Your task to perform on an android device: Add "razer deathadder" to the cart on ebay.com, then select checkout. Image 0: 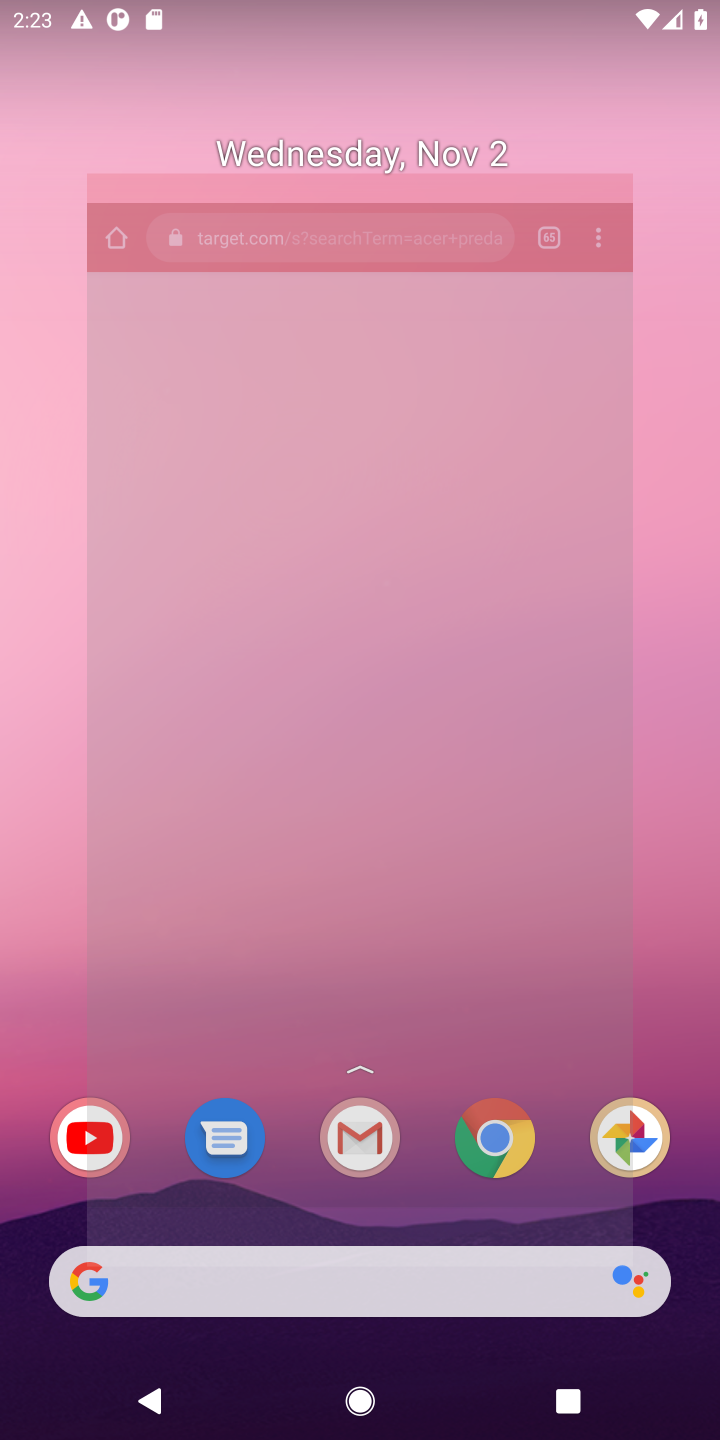
Step 0: press home button
Your task to perform on an android device: Add "razer deathadder" to the cart on ebay.com, then select checkout. Image 1: 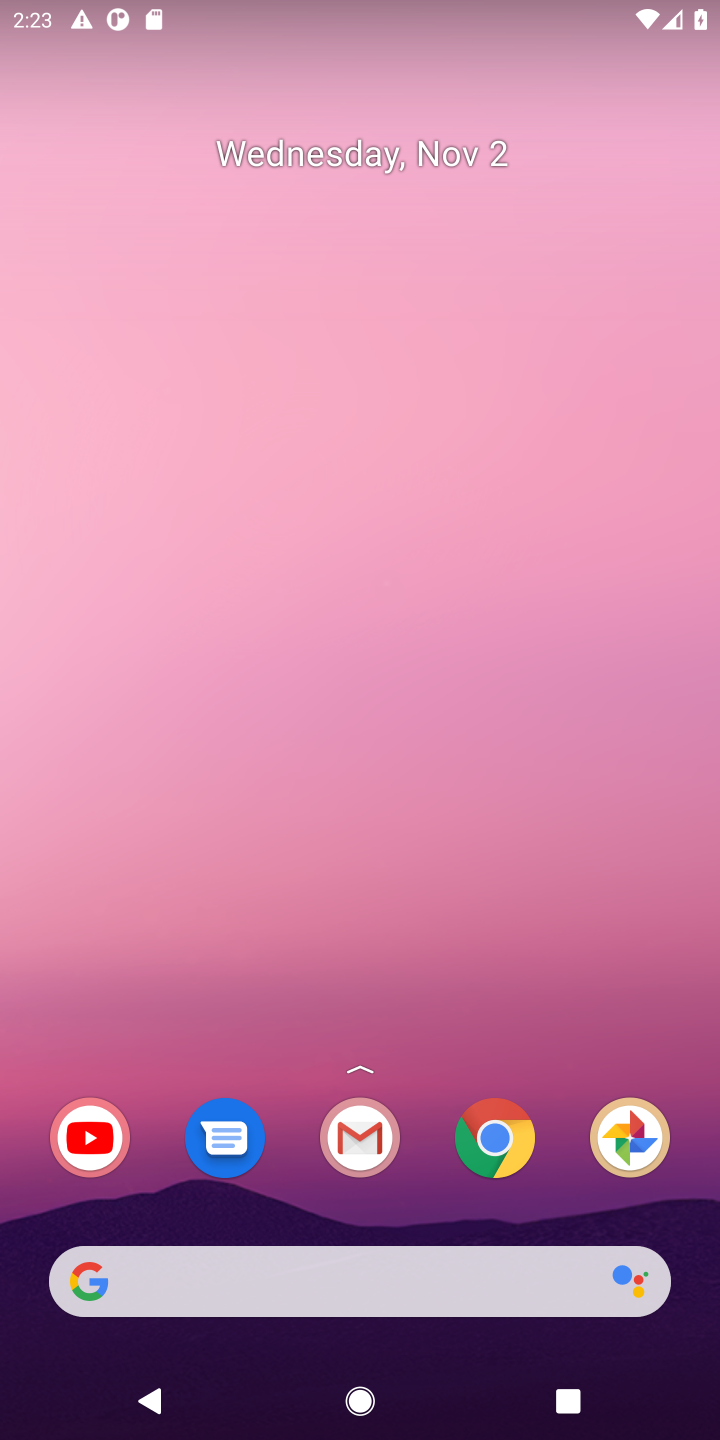
Step 1: press home button
Your task to perform on an android device: Add "razer deathadder" to the cart on ebay.com, then select checkout. Image 2: 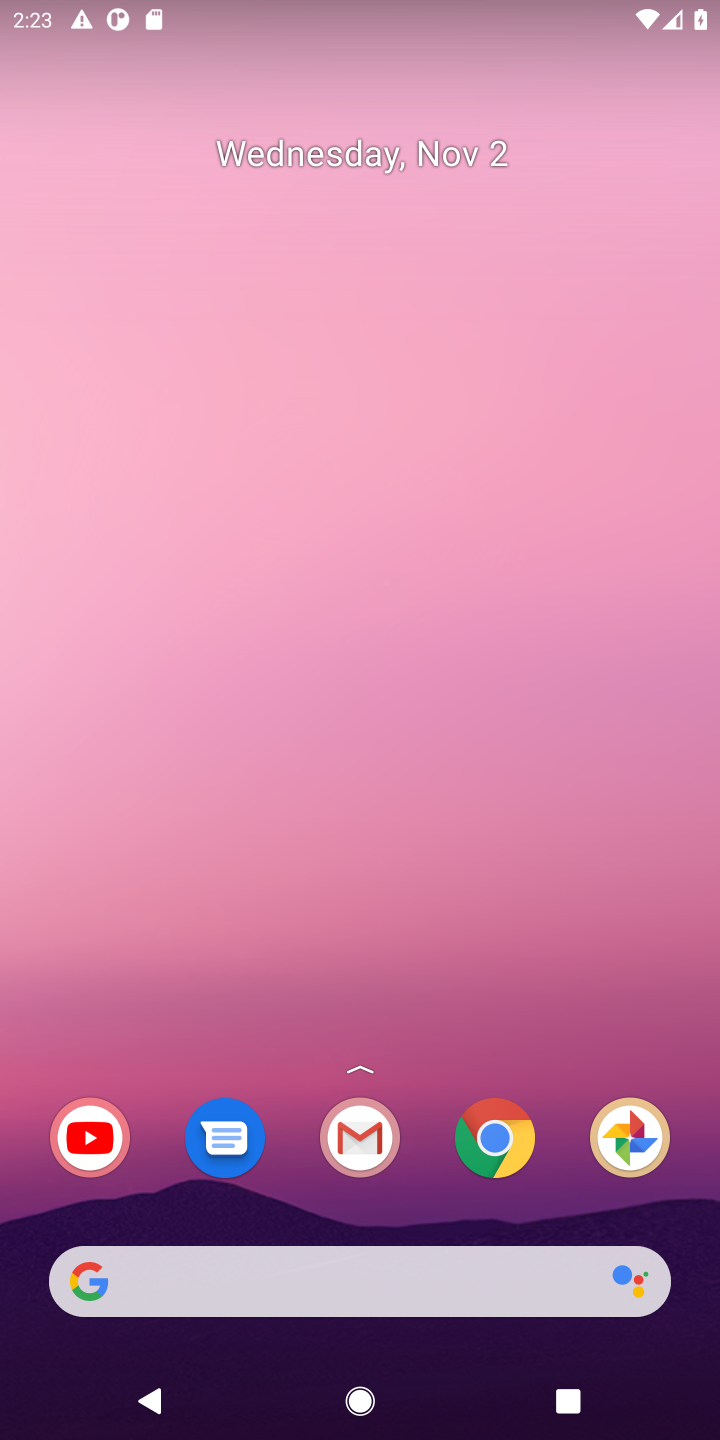
Step 2: click (140, 1272)
Your task to perform on an android device: Add "razer deathadder" to the cart on ebay.com, then select checkout. Image 3: 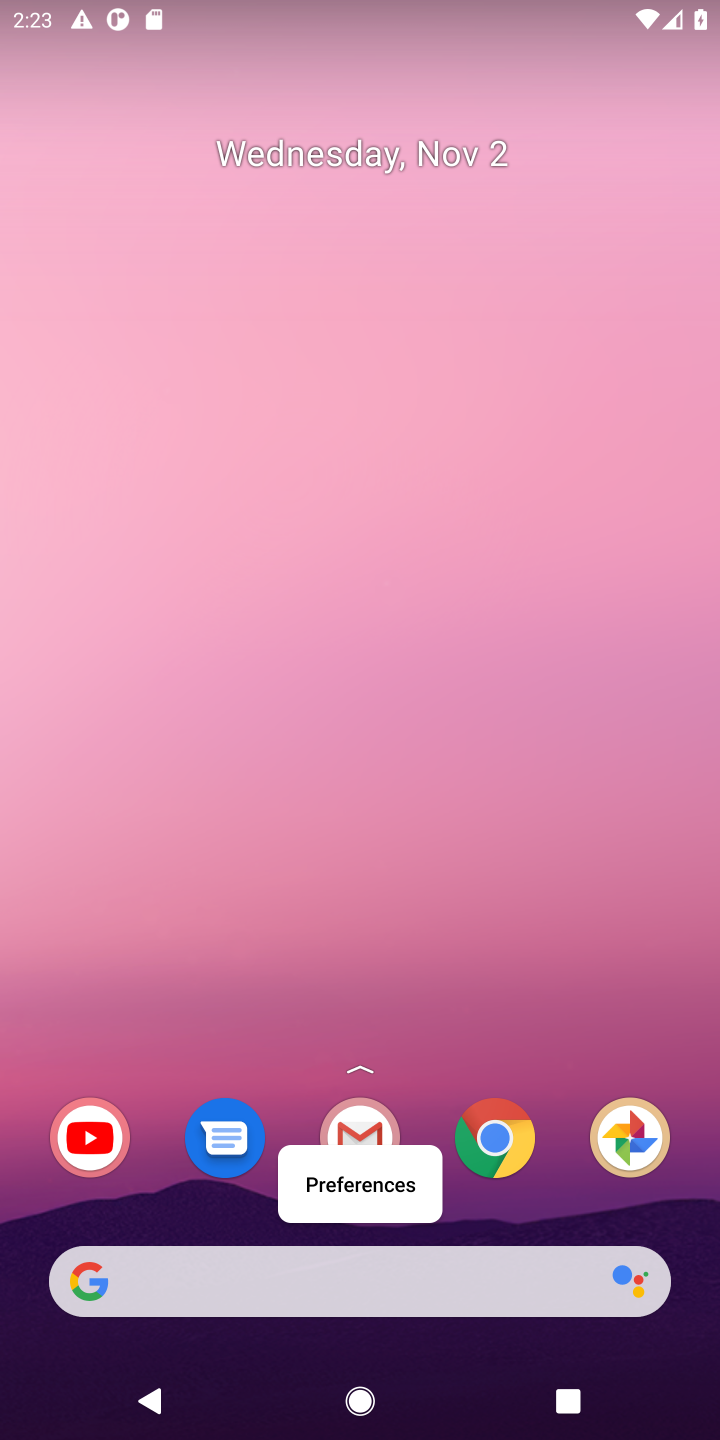
Step 3: click (160, 1274)
Your task to perform on an android device: Add "razer deathadder" to the cart on ebay.com, then select checkout. Image 4: 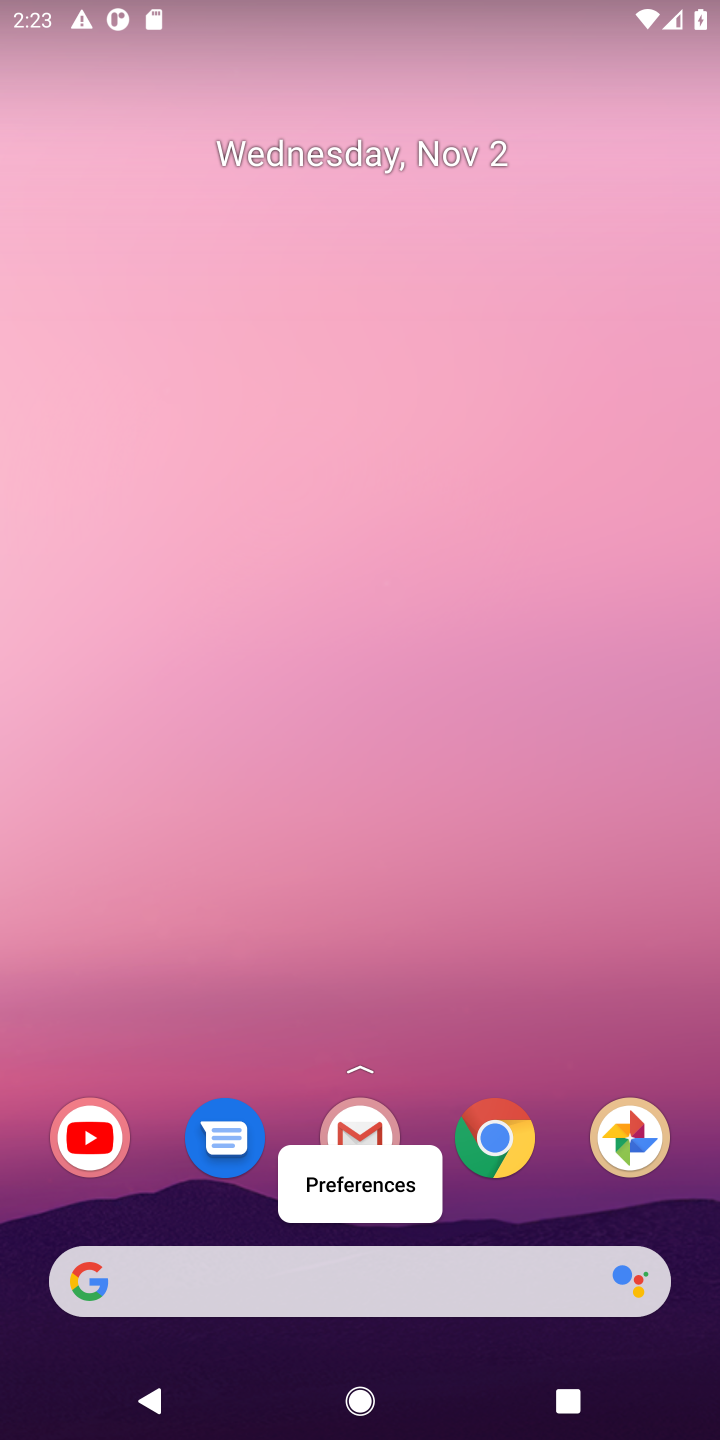
Step 4: click (133, 1272)
Your task to perform on an android device: Add "razer deathadder" to the cart on ebay.com, then select checkout. Image 5: 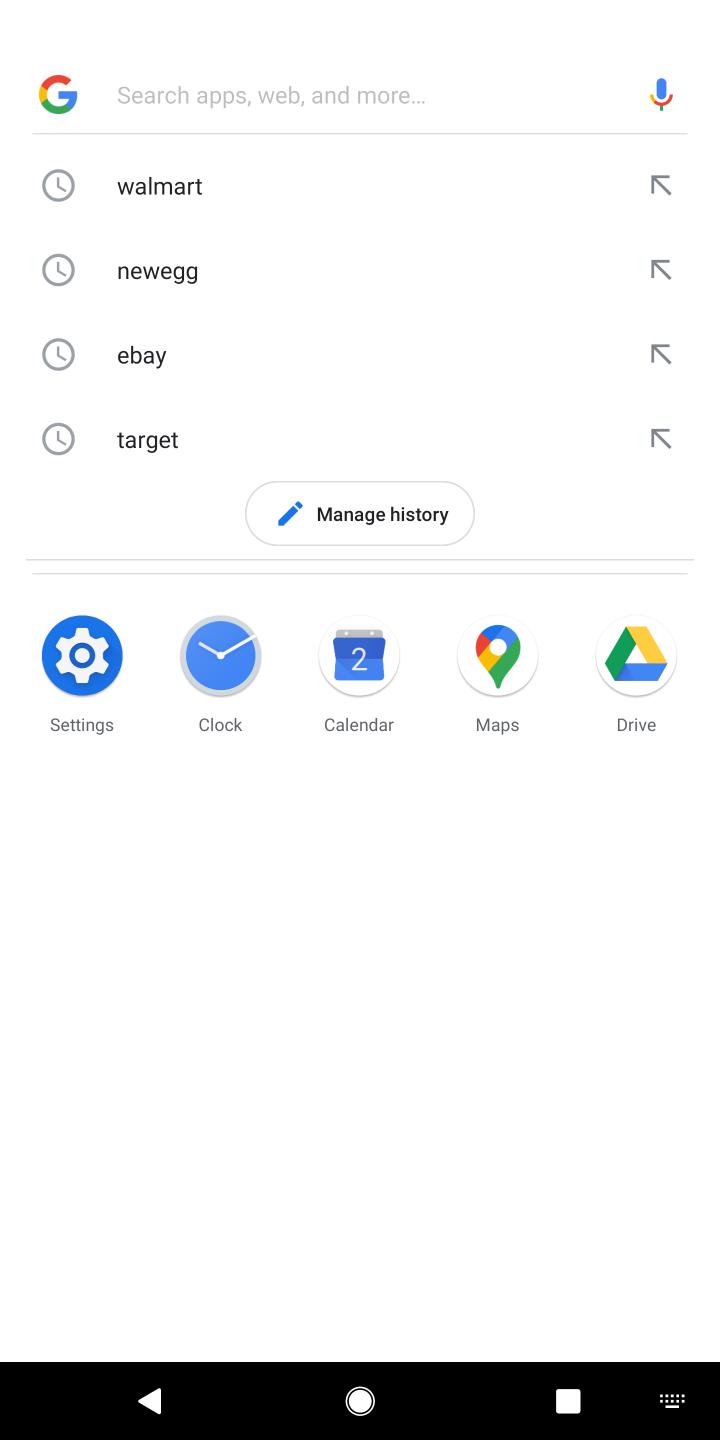
Step 5: type "ebay.com"
Your task to perform on an android device: Add "razer deathadder" to the cart on ebay.com, then select checkout. Image 6: 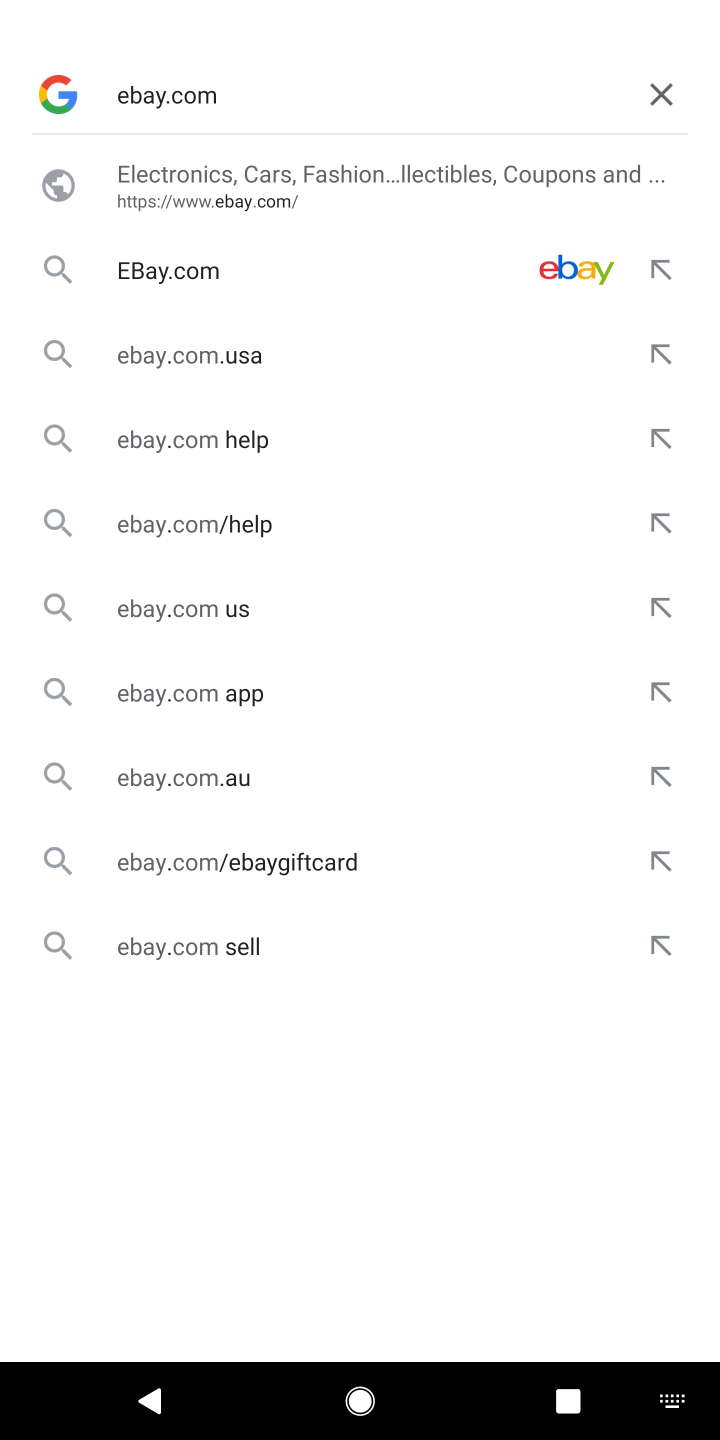
Step 6: press enter
Your task to perform on an android device: Add "razer deathadder" to the cart on ebay.com, then select checkout. Image 7: 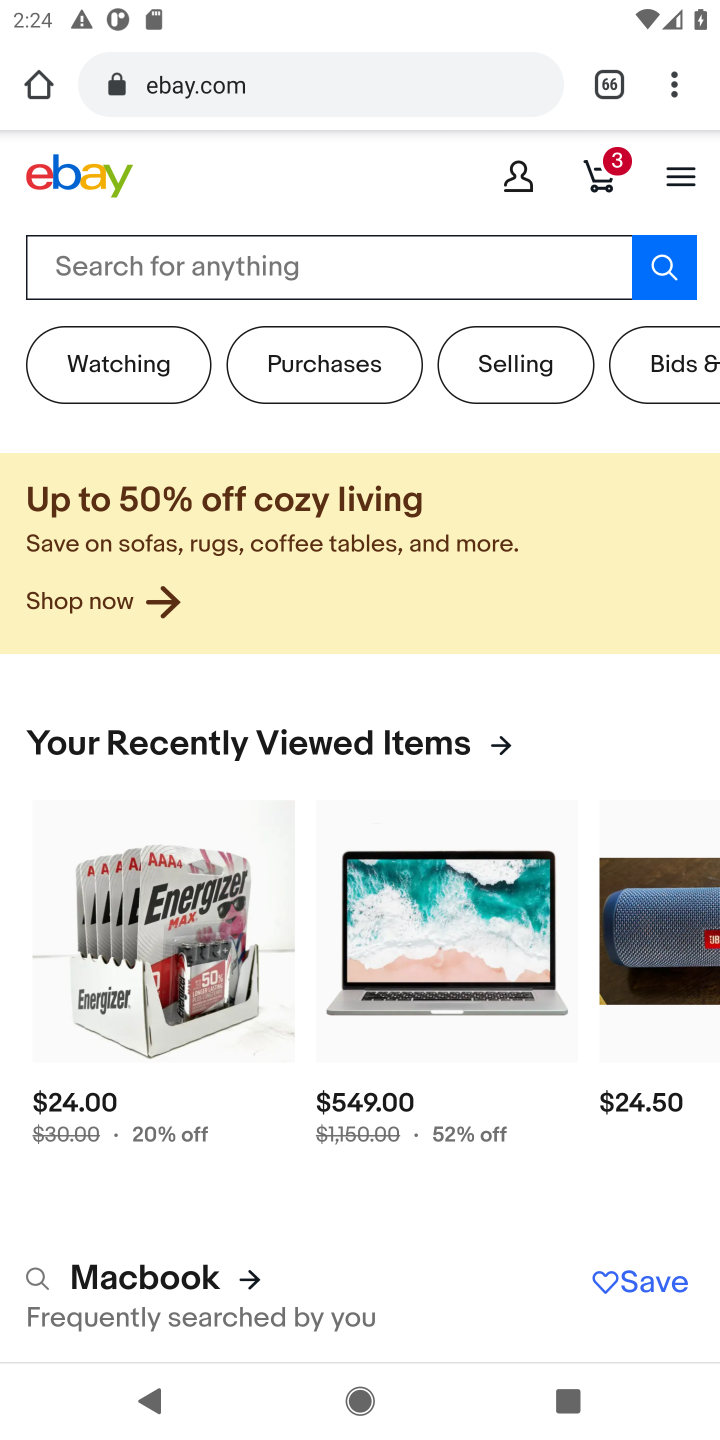
Step 7: click (309, 261)
Your task to perform on an android device: Add "razer deathadder" to the cart on ebay.com, then select checkout. Image 8: 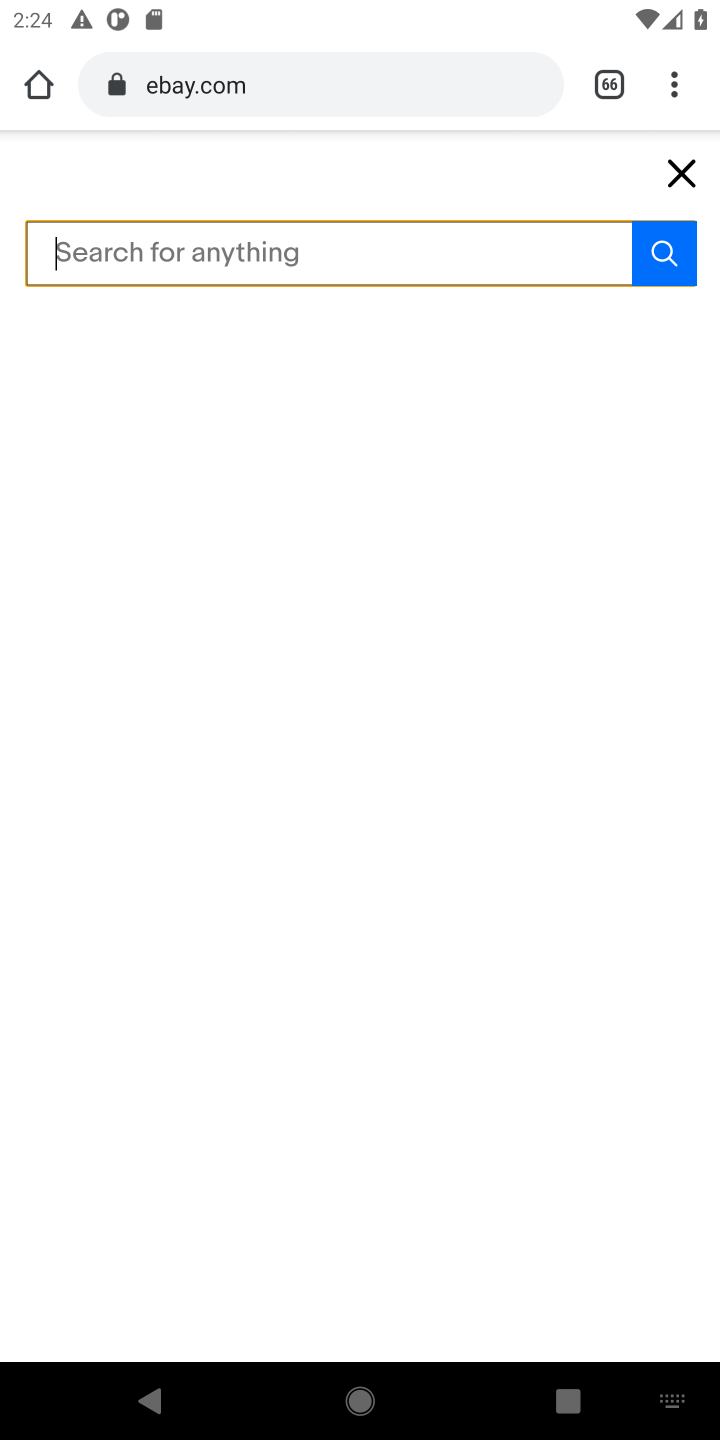
Step 8: type "razer deathadder"
Your task to perform on an android device: Add "razer deathadder" to the cart on ebay.com, then select checkout. Image 9: 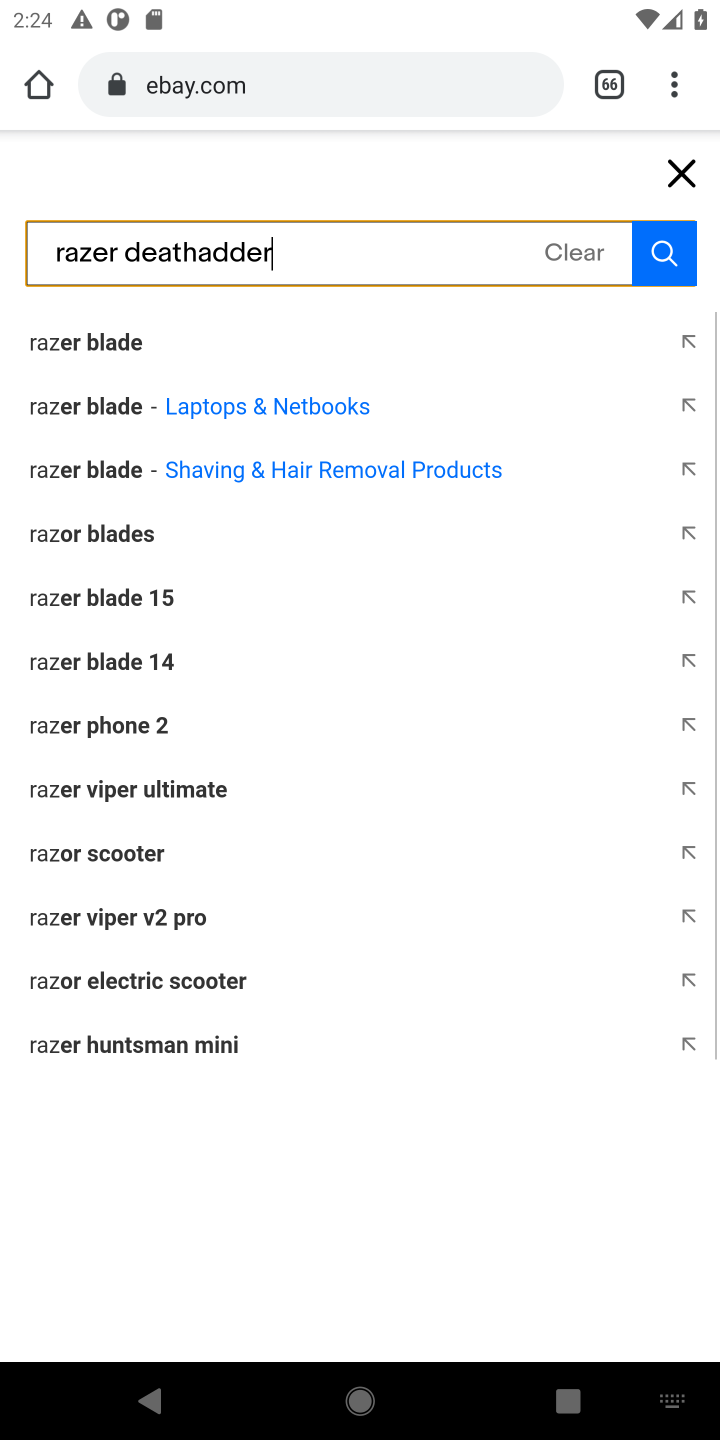
Step 9: press enter
Your task to perform on an android device: Add "razer deathadder" to the cart on ebay.com, then select checkout. Image 10: 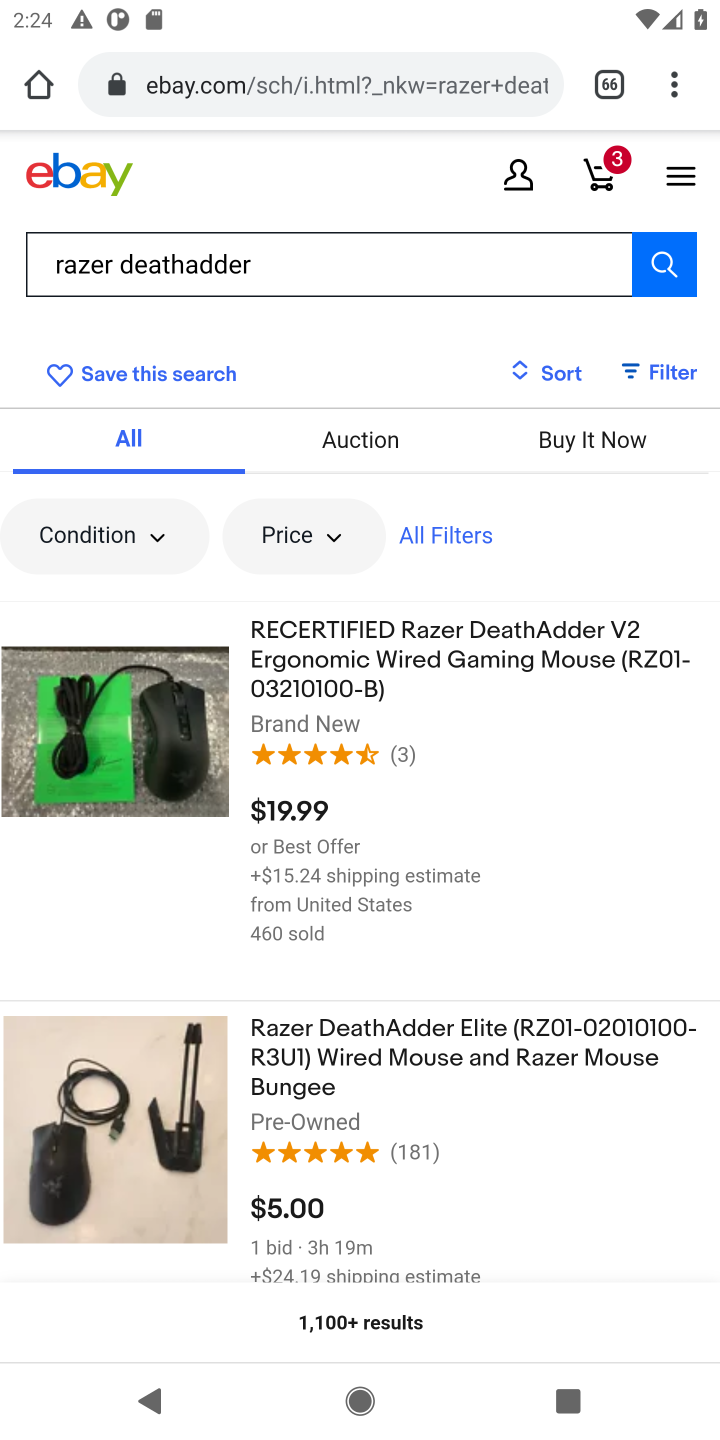
Step 10: drag from (509, 1152) to (504, 793)
Your task to perform on an android device: Add "razer deathadder" to the cart on ebay.com, then select checkout. Image 11: 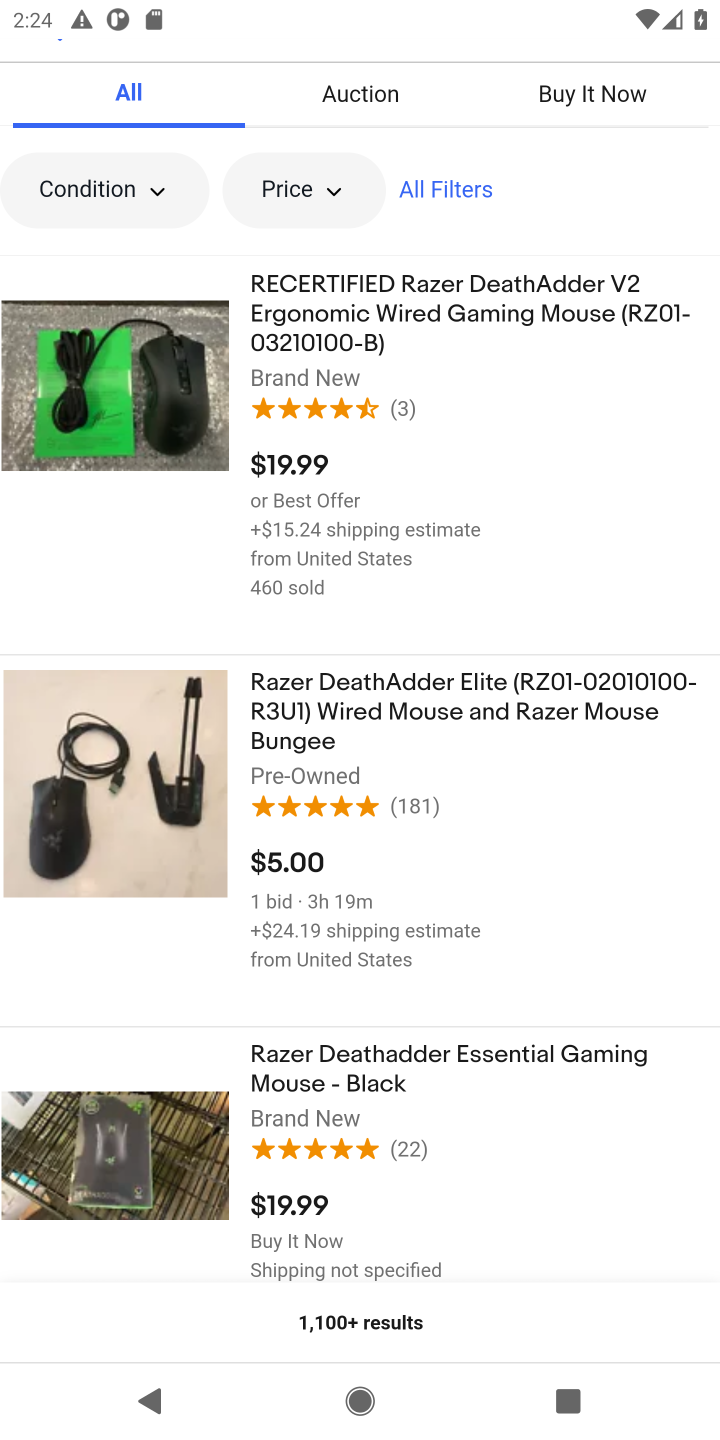
Step 11: click (414, 690)
Your task to perform on an android device: Add "razer deathadder" to the cart on ebay.com, then select checkout. Image 12: 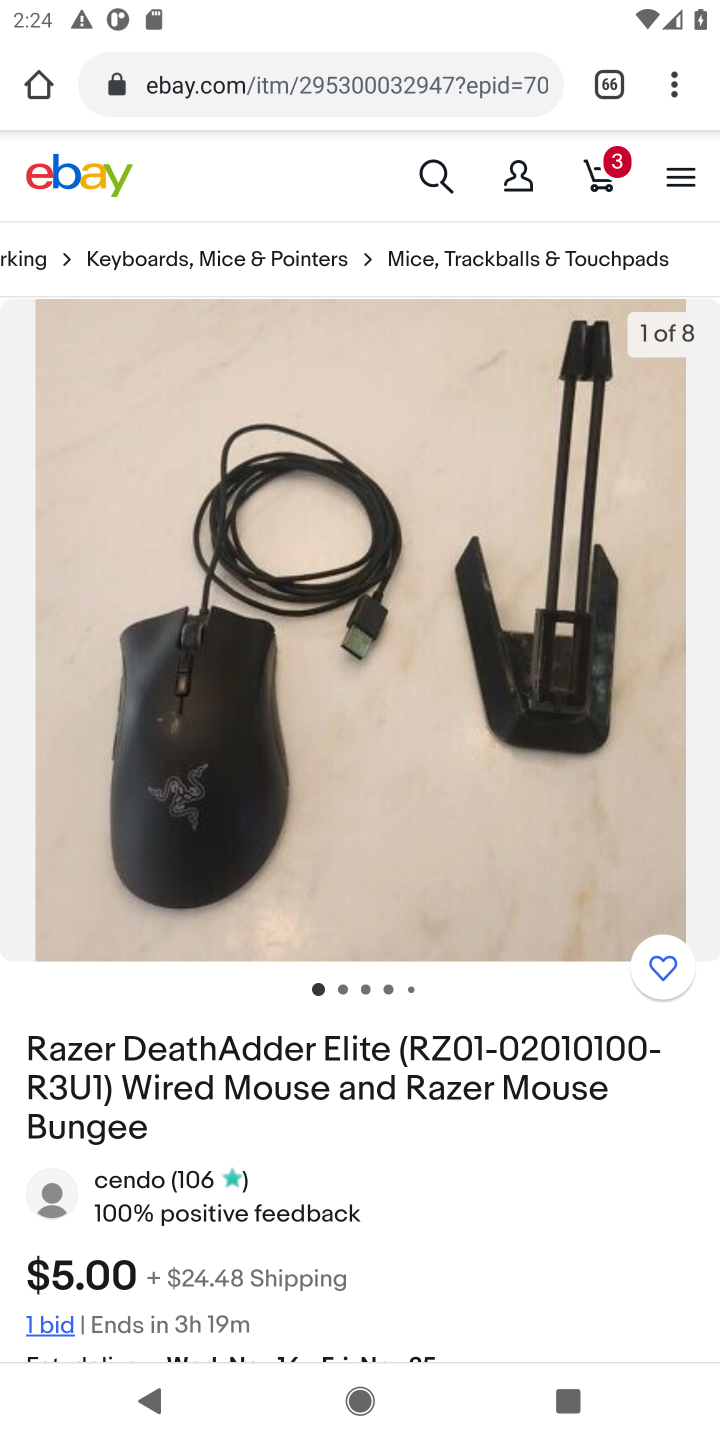
Step 12: drag from (434, 1172) to (457, 722)
Your task to perform on an android device: Add "razer deathadder" to the cart on ebay.com, then select checkout. Image 13: 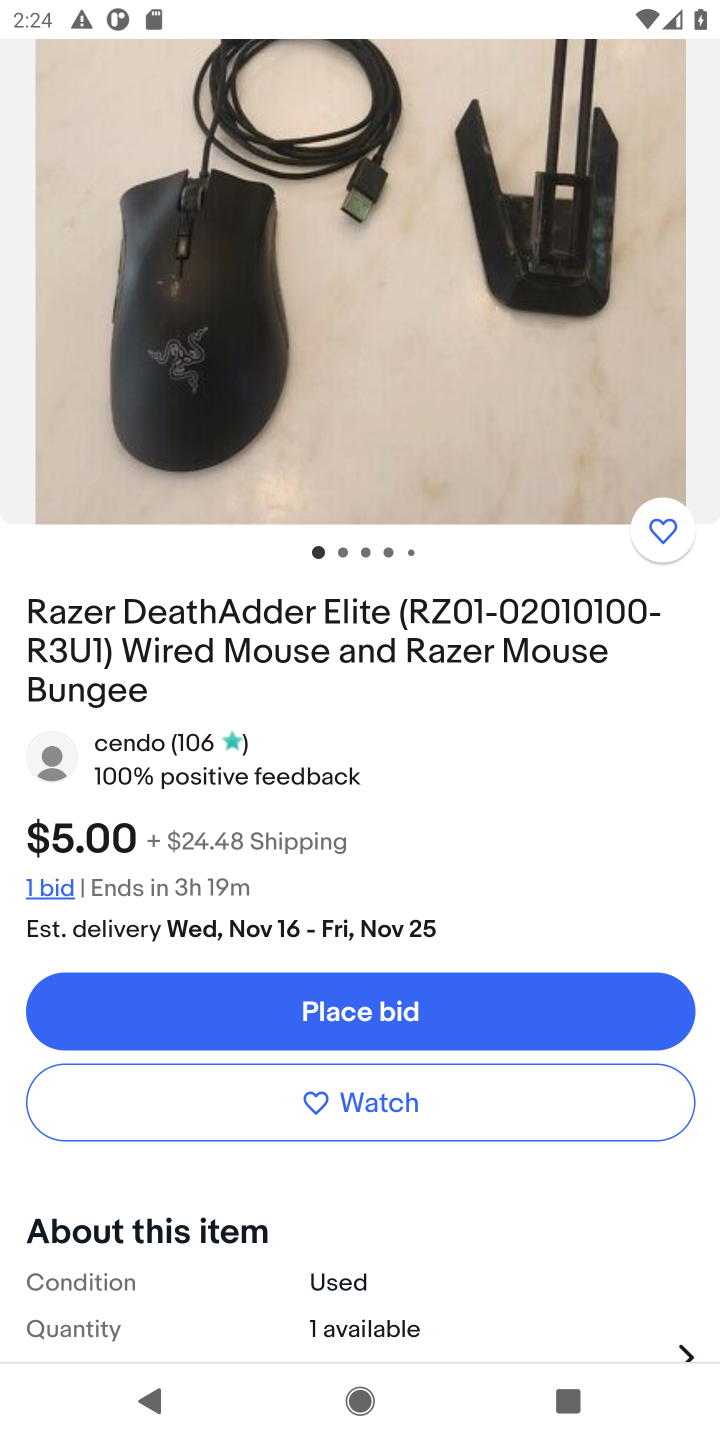
Step 13: drag from (498, 1059) to (498, 723)
Your task to perform on an android device: Add "razer deathadder" to the cart on ebay.com, then select checkout. Image 14: 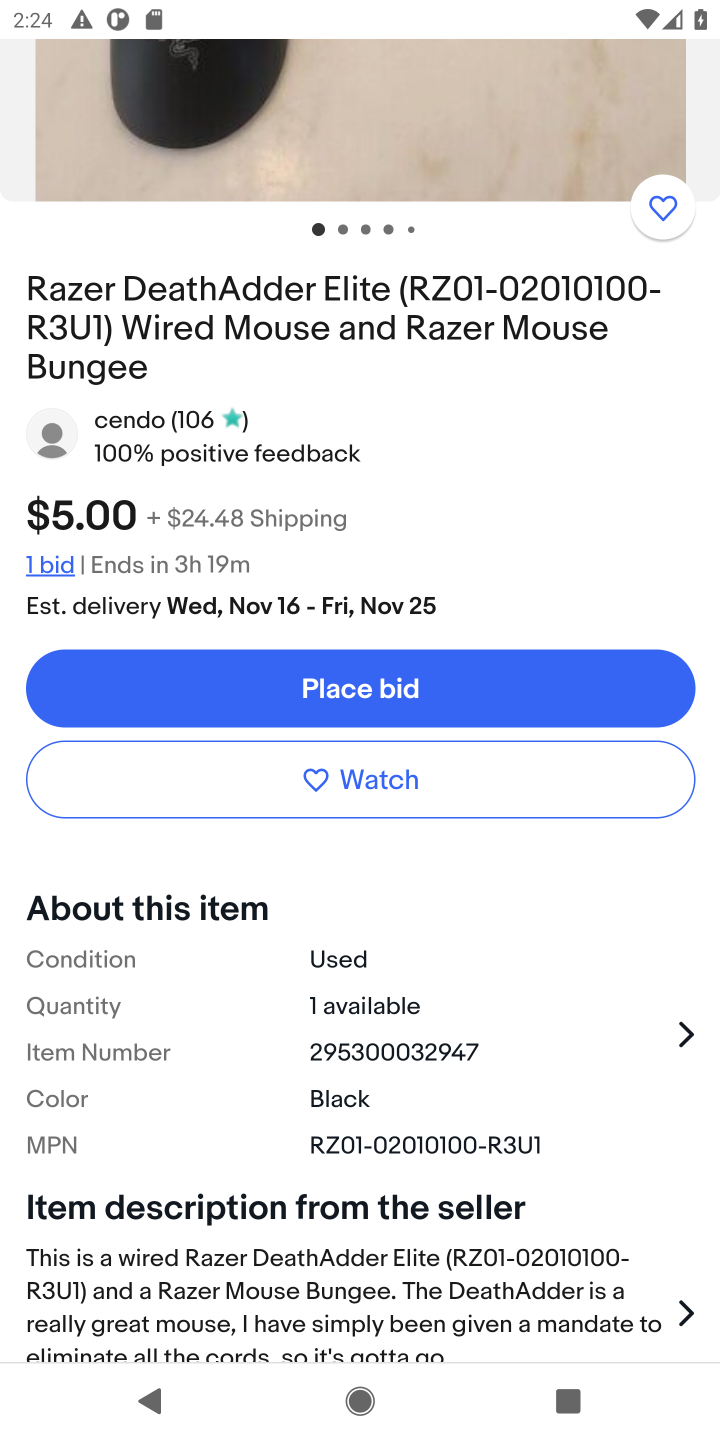
Step 14: click (451, 691)
Your task to perform on an android device: Add "razer deathadder" to the cart on ebay.com, then select checkout. Image 15: 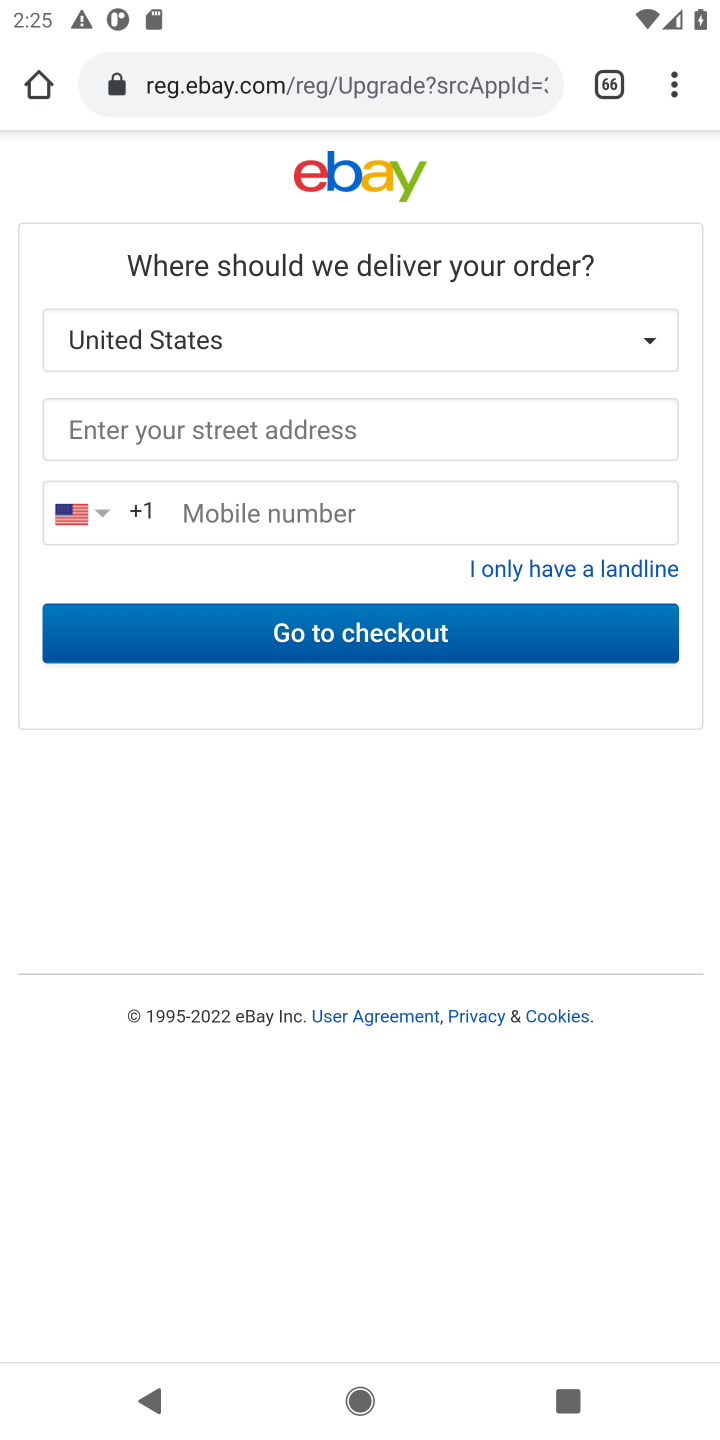
Step 15: click (445, 636)
Your task to perform on an android device: Add "razer deathadder" to the cart on ebay.com, then select checkout. Image 16: 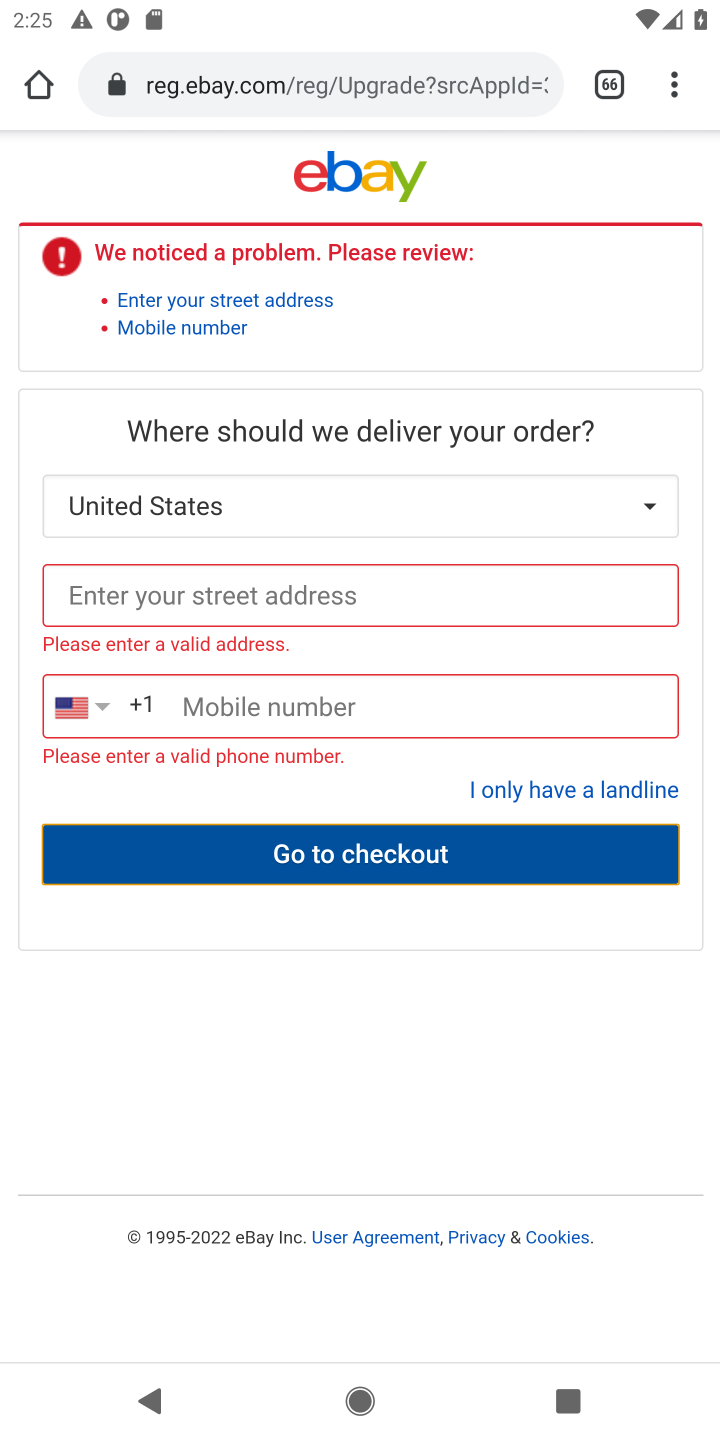
Step 16: task complete